Your task to perform on an android device: check data usage Image 0: 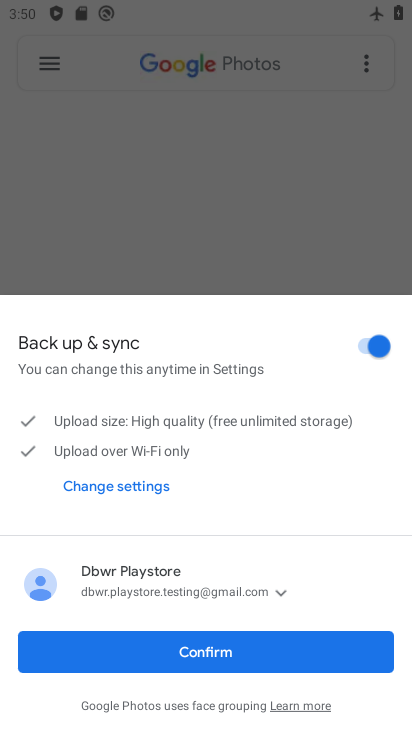
Step 0: press home button
Your task to perform on an android device: check data usage Image 1: 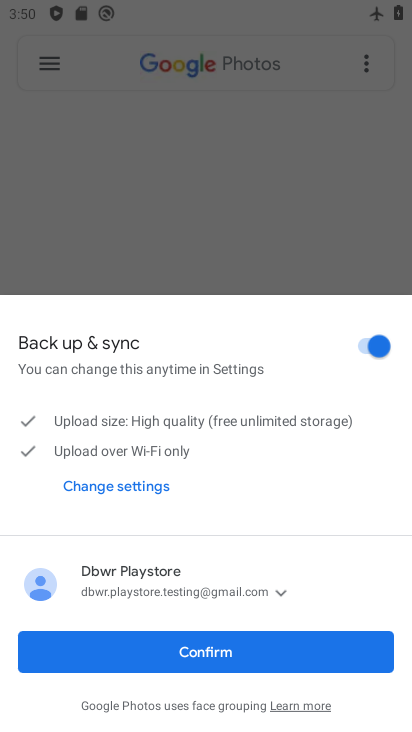
Step 1: press home button
Your task to perform on an android device: check data usage Image 2: 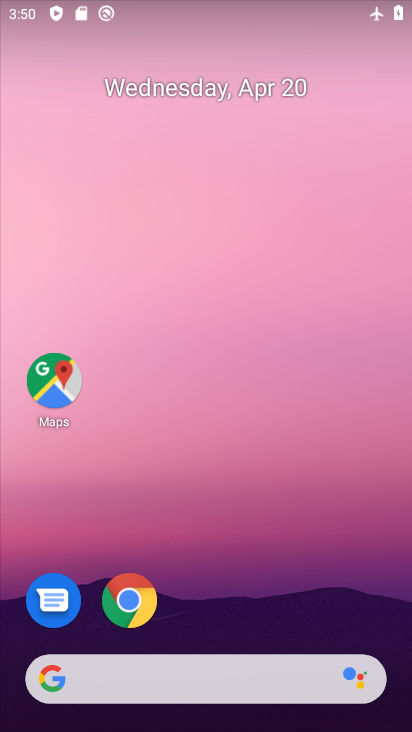
Step 2: drag from (215, 622) to (238, 9)
Your task to perform on an android device: check data usage Image 3: 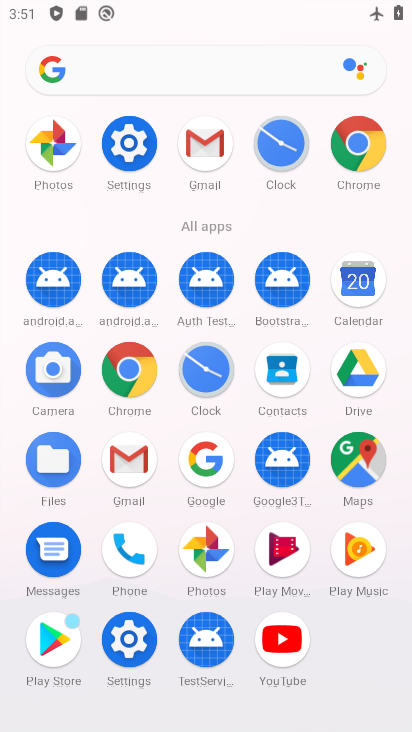
Step 3: click (128, 635)
Your task to perform on an android device: check data usage Image 4: 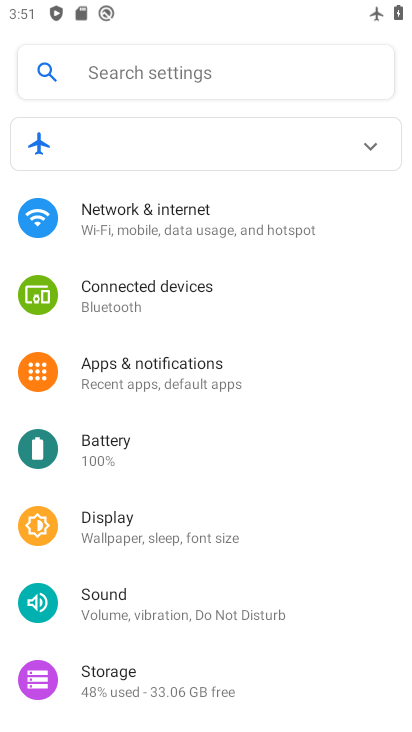
Step 4: click (167, 219)
Your task to perform on an android device: check data usage Image 5: 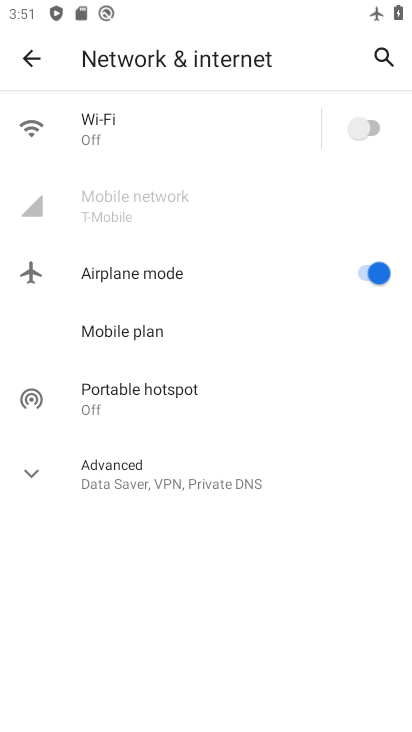
Step 5: click (369, 270)
Your task to perform on an android device: check data usage Image 6: 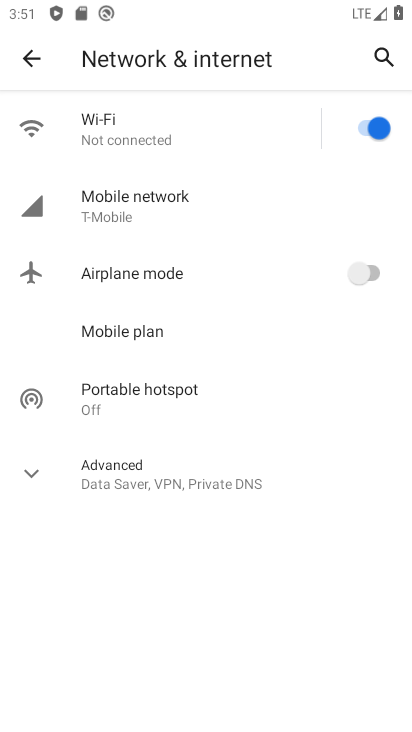
Step 6: click (147, 204)
Your task to perform on an android device: check data usage Image 7: 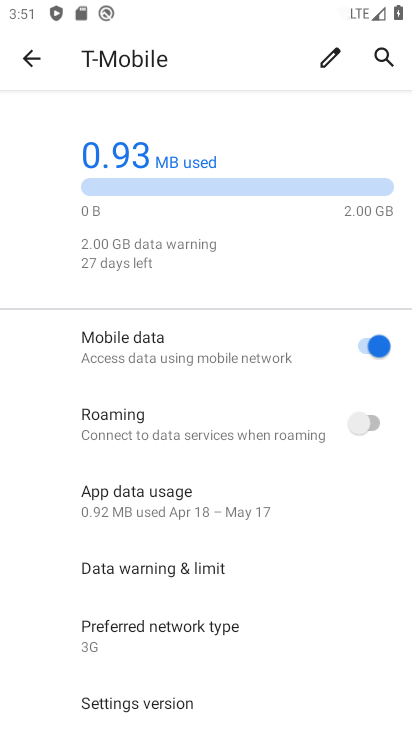
Step 7: click (187, 499)
Your task to perform on an android device: check data usage Image 8: 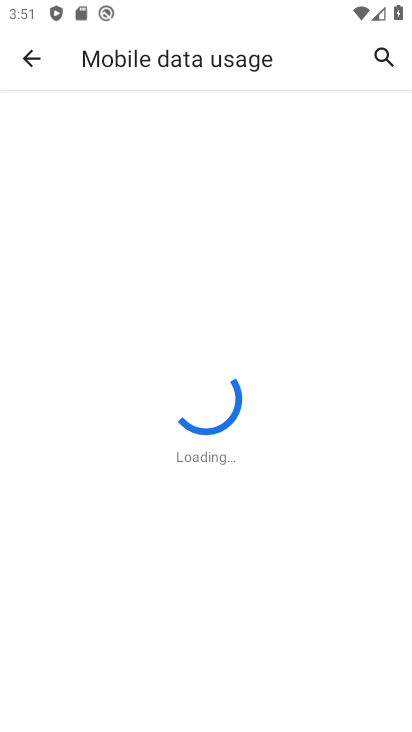
Step 8: task complete